Your task to perform on an android device: Go to Amazon Image 0: 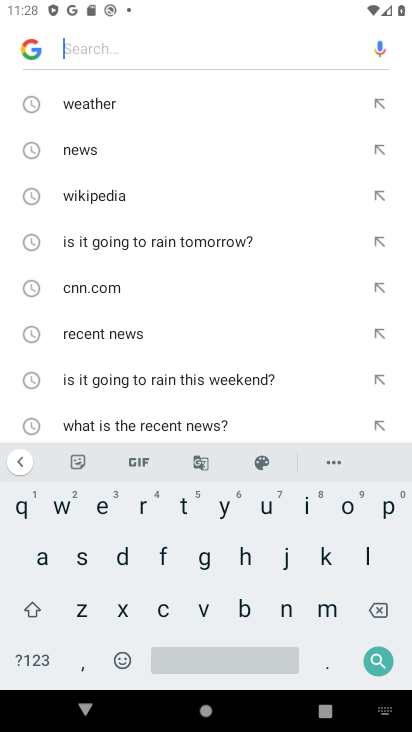
Step 0: press home button
Your task to perform on an android device: Go to Amazon Image 1: 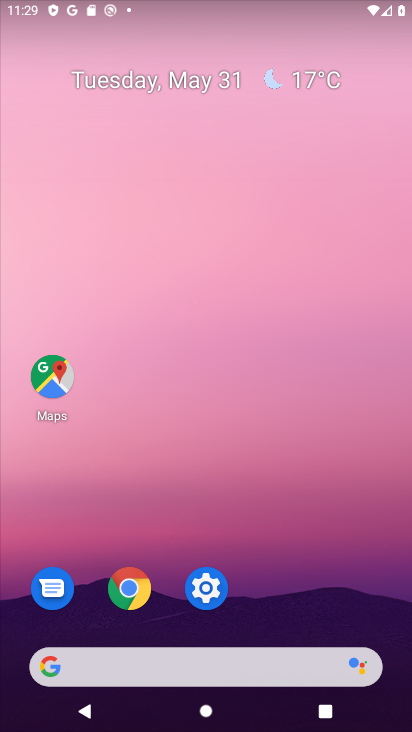
Step 1: click (143, 571)
Your task to perform on an android device: Go to Amazon Image 2: 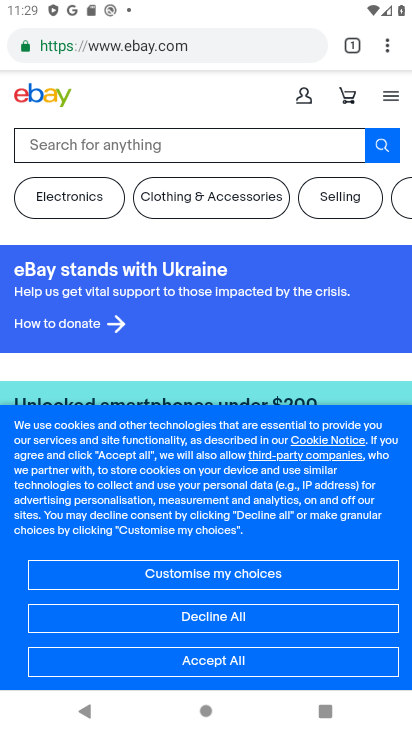
Step 2: click (392, 42)
Your task to perform on an android device: Go to Amazon Image 3: 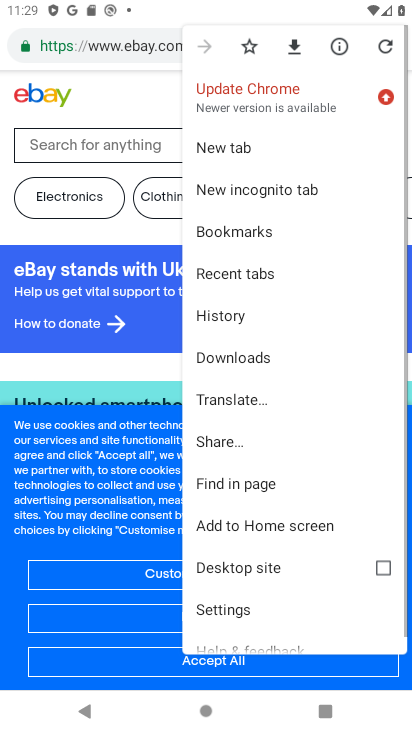
Step 3: click (392, 42)
Your task to perform on an android device: Go to Amazon Image 4: 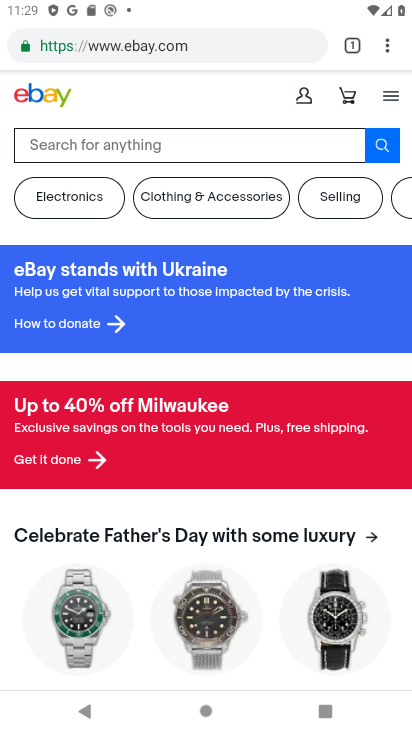
Step 4: click (390, 44)
Your task to perform on an android device: Go to Amazon Image 5: 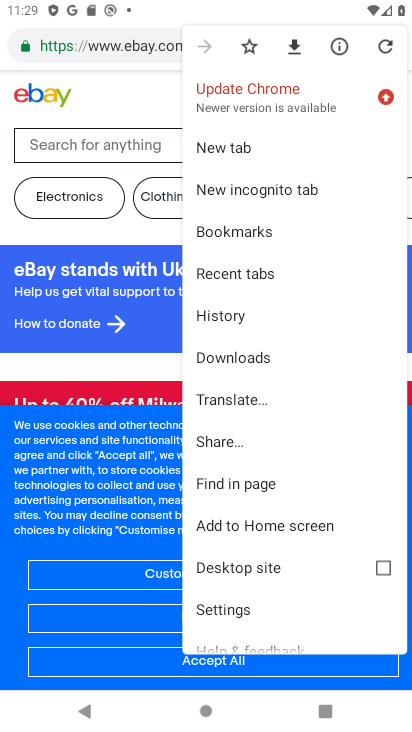
Step 5: click (256, 145)
Your task to perform on an android device: Go to Amazon Image 6: 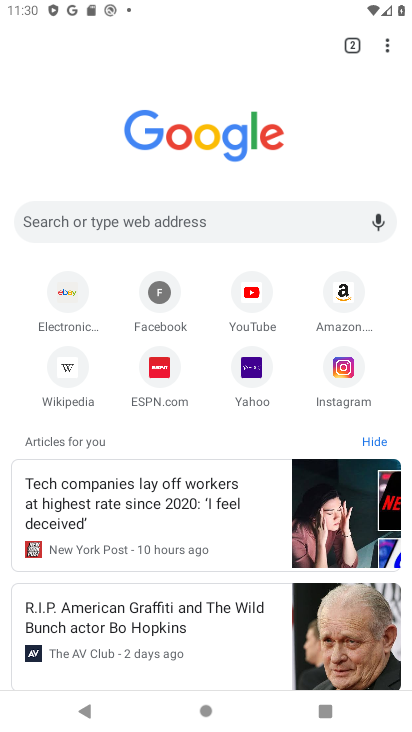
Step 6: click (347, 300)
Your task to perform on an android device: Go to Amazon Image 7: 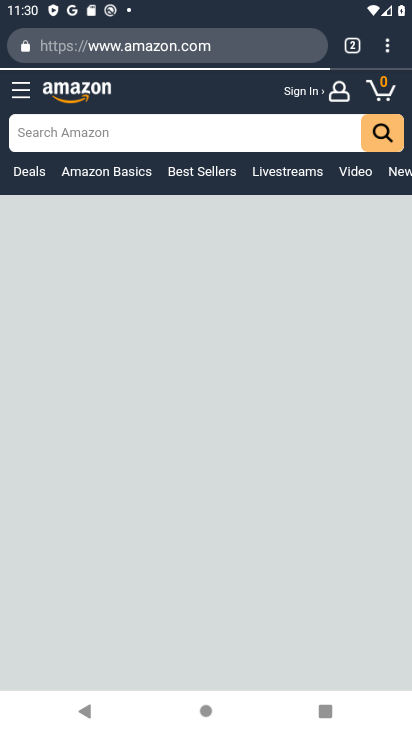
Step 7: task complete